Your task to perform on an android device: turn off smart reply in the gmail app Image 0: 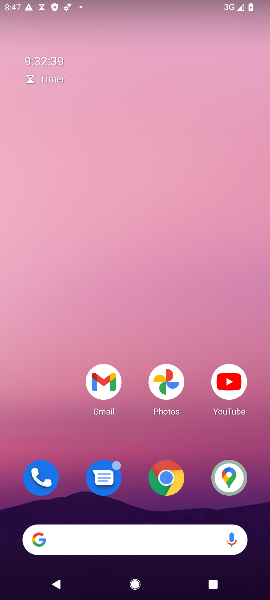
Step 0: drag from (245, 348) to (113, 2)
Your task to perform on an android device: turn off smart reply in the gmail app Image 1: 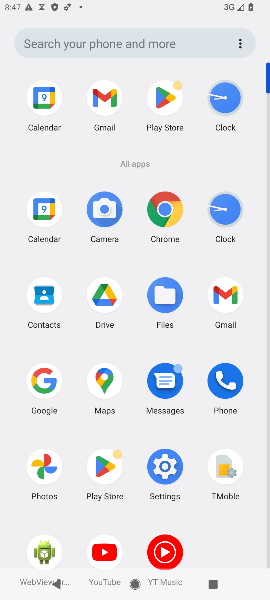
Step 1: click (107, 103)
Your task to perform on an android device: turn off smart reply in the gmail app Image 2: 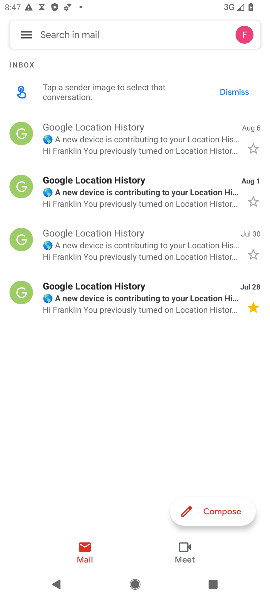
Step 2: click (14, 37)
Your task to perform on an android device: turn off smart reply in the gmail app Image 3: 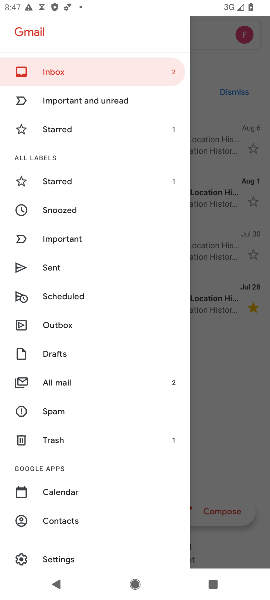
Step 3: click (60, 555)
Your task to perform on an android device: turn off smart reply in the gmail app Image 4: 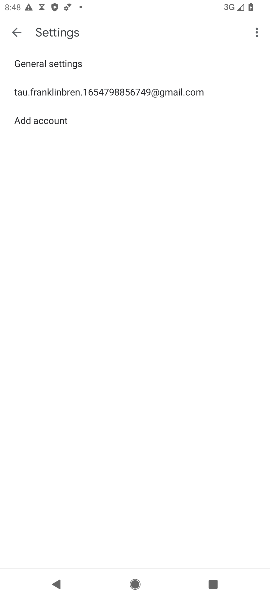
Step 4: click (143, 93)
Your task to perform on an android device: turn off smart reply in the gmail app Image 5: 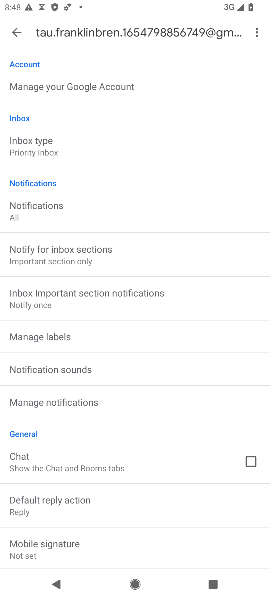
Step 5: drag from (185, 518) to (144, 220)
Your task to perform on an android device: turn off smart reply in the gmail app Image 6: 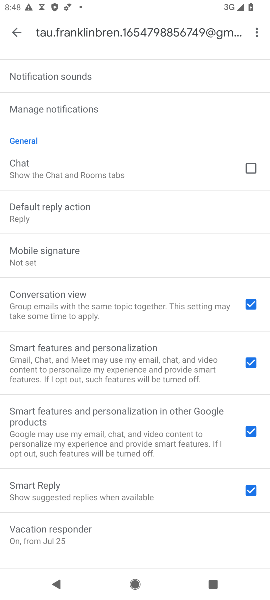
Step 6: click (243, 499)
Your task to perform on an android device: turn off smart reply in the gmail app Image 7: 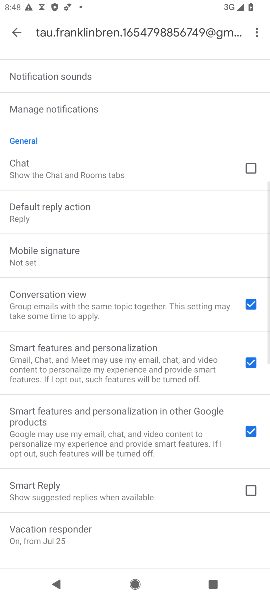
Step 7: task complete